Your task to perform on an android device: snooze an email in the gmail app Image 0: 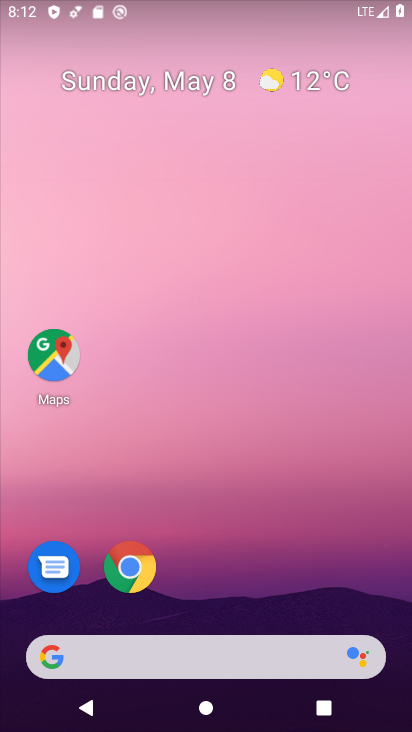
Step 0: drag from (227, 637) to (299, 6)
Your task to perform on an android device: snooze an email in the gmail app Image 1: 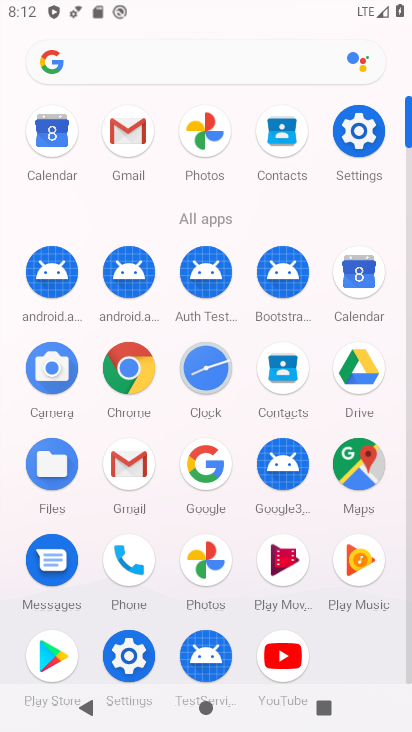
Step 1: click (130, 127)
Your task to perform on an android device: snooze an email in the gmail app Image 2: 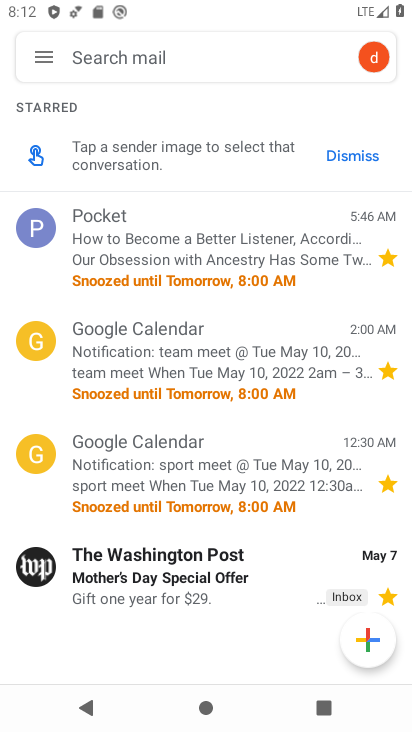
Step 2: click (20, 554)
Your task to perform on an android device: snooze an email in the gmail app Image 3: 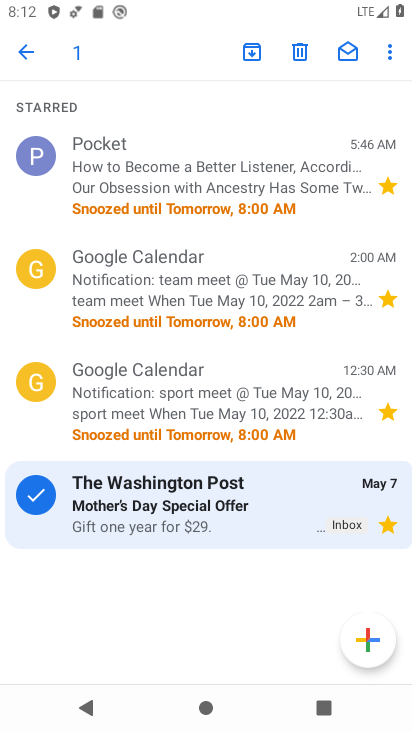
Step 3: click (396, 48)
Your task to perform on an android device: snooze an email in the gmail app Image 4: 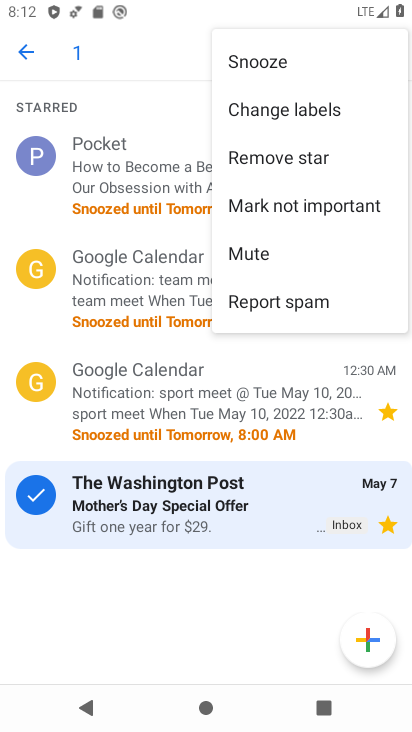
Step 4: click (277, 64)
Your task to perform on an android device: snooze an email in the gmail app Image 5: 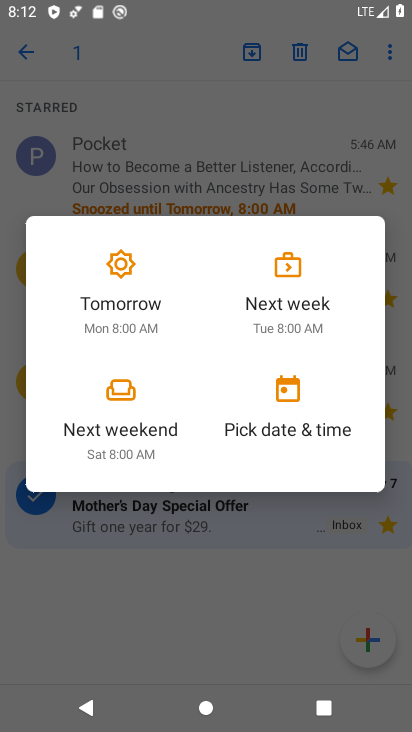
Step 5: click (96, 307)
Your task to perform on an android device: snooze an email in the gmail app Image 6: 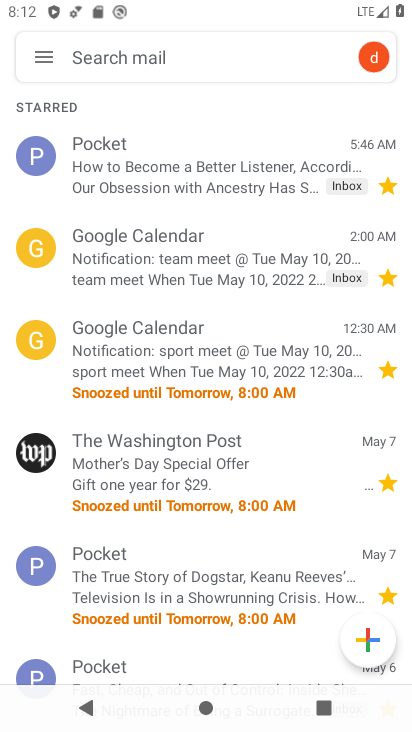
Step 6: task complete